Your task to perform on an android device: Go to settings Image 0: 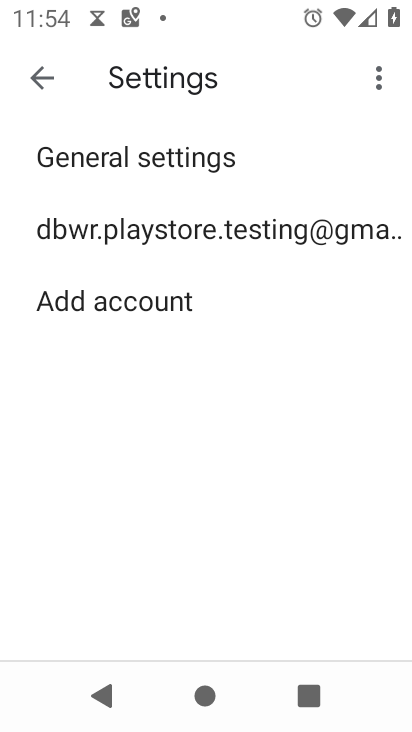
Step 0: press home button
Your task to perform on an android device: Go to settings Image 1: 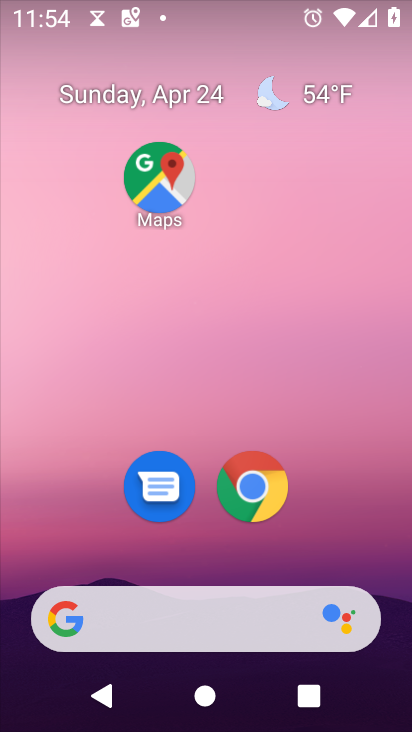
Step 1: drag from (239, 582) to (288, 166)
Your task to perform on an android device: Go to settings Image 2: 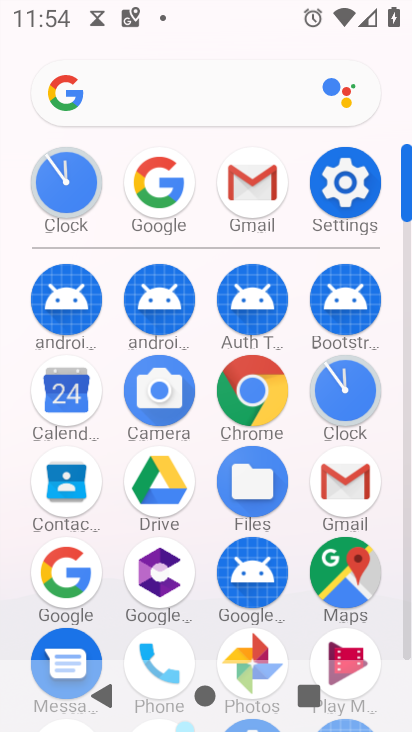
Step 2: click (341, 208)
Your task to perform on an android device: Go to settings Image 3: 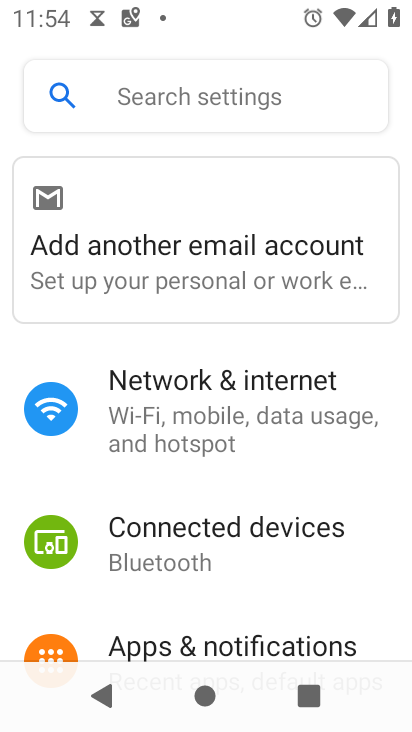
Step 3: task complete